Your task to perform on an android device: Do I have any events tomorrow? Image 0: 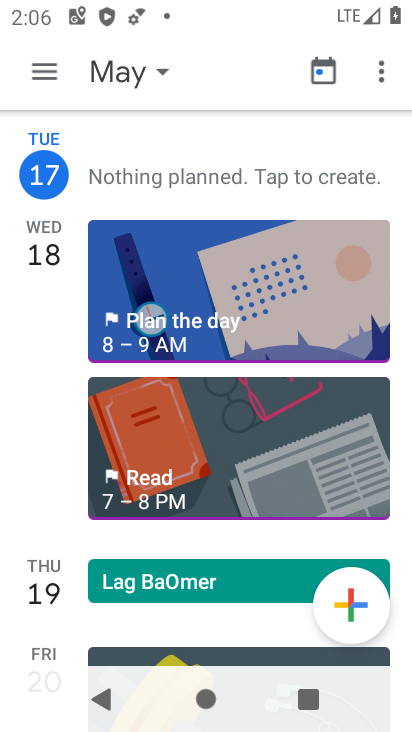
Step 0: click (137, 76)
Your task to perform on an android device: Do I have any events tomorrow? Image 1: 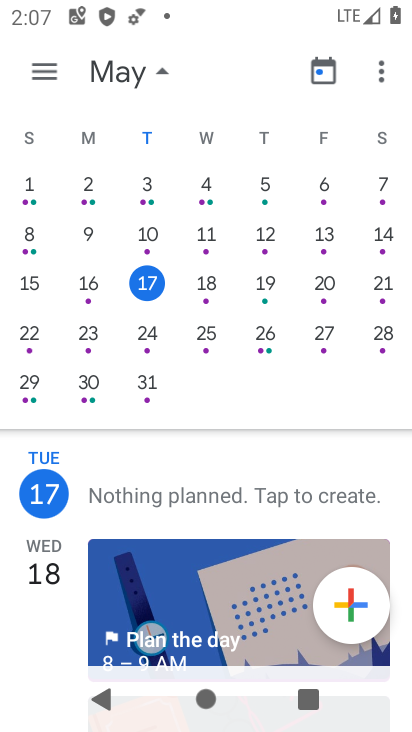
Step 1: click (211, 282)
Your task to perform on an android device: Do I have any events tomorrow? Image 2: 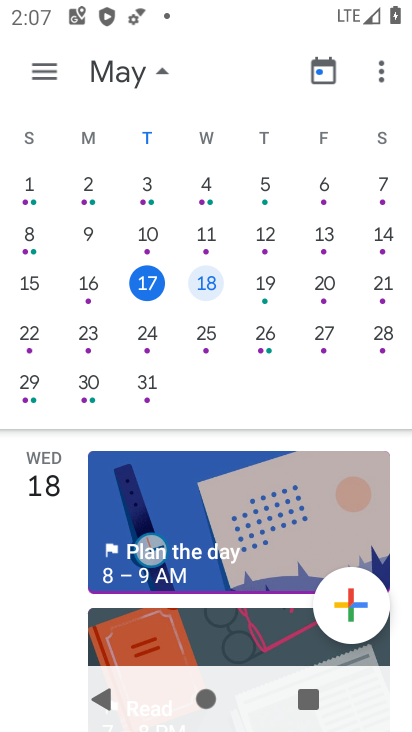
Step 2: task complete